Your task to perform on an android device: Toggle the flashlight Image 0: 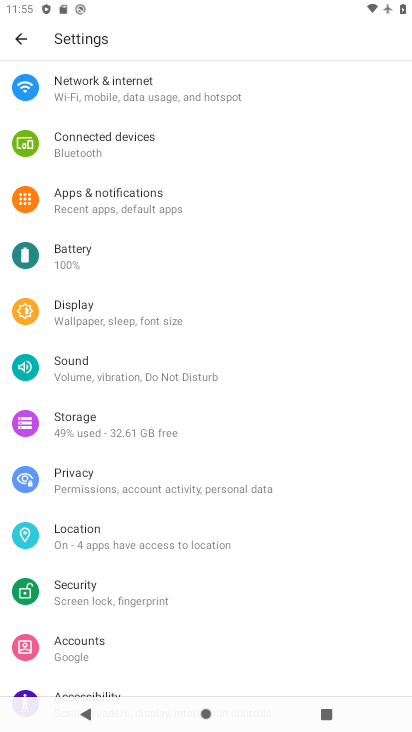
Step 0: drag from (126, 0) to (193, 379)
Your task to perform on an android device: Toggle the flashlight Image 1: 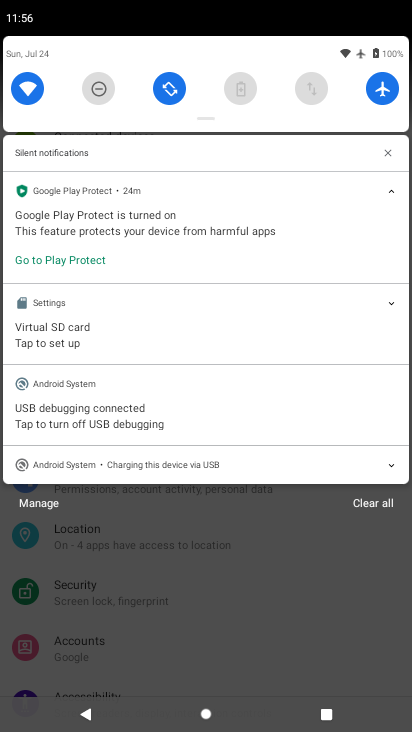
Step 1: task complete